Your task to perform on an android device: Go to battery settings Image 0: 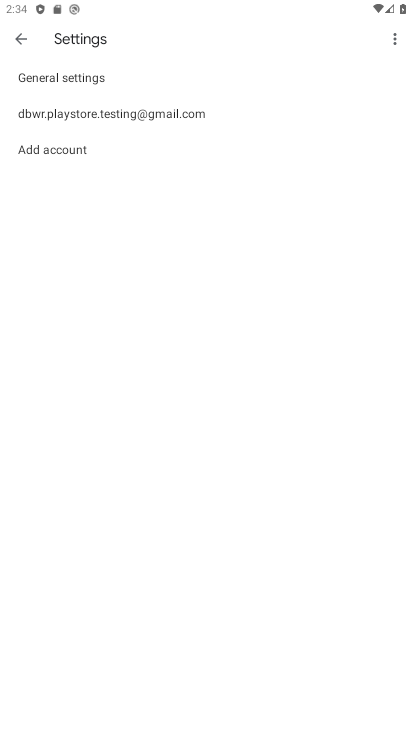
Step 0: press home button
Your task to perform on an android device: Go to battery settings Image 1: 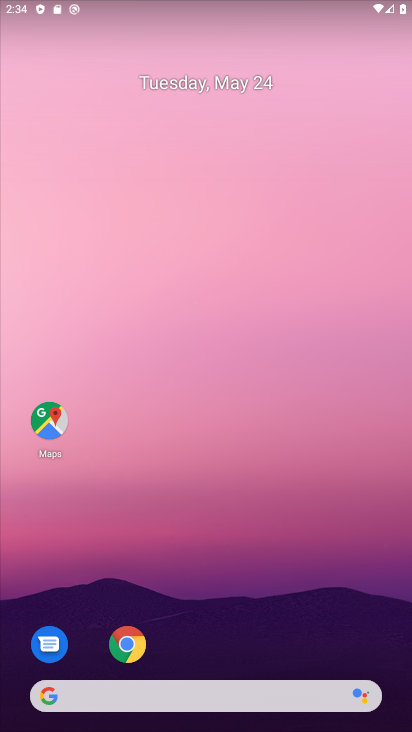
Step 1: drag from (280, 594) to (248, 9)
Your task to perform on an android device: Go to battery settings Image 2: 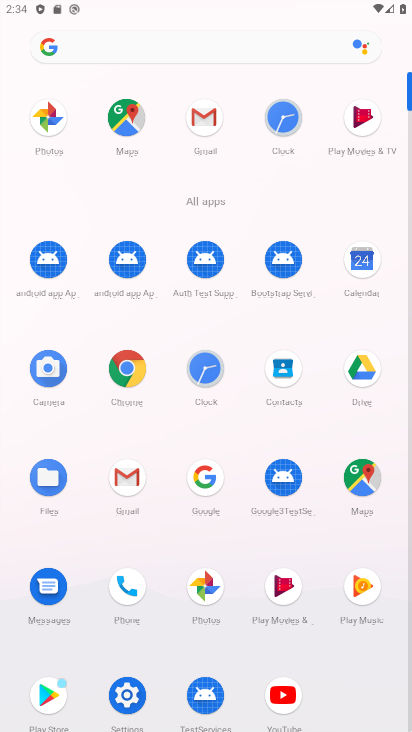
Step 2: click (141, 700)
Your task to perform on an android device: Go to battery settings Image 3: 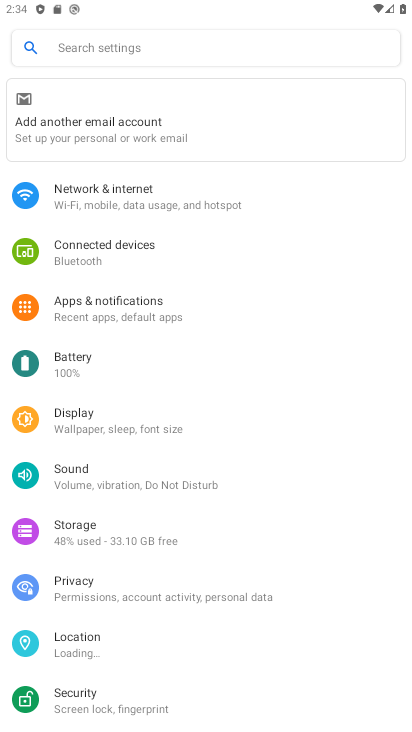
Step 3: click (86, 365)
Your task to perform on an android device: Go to battery settings Image 4: 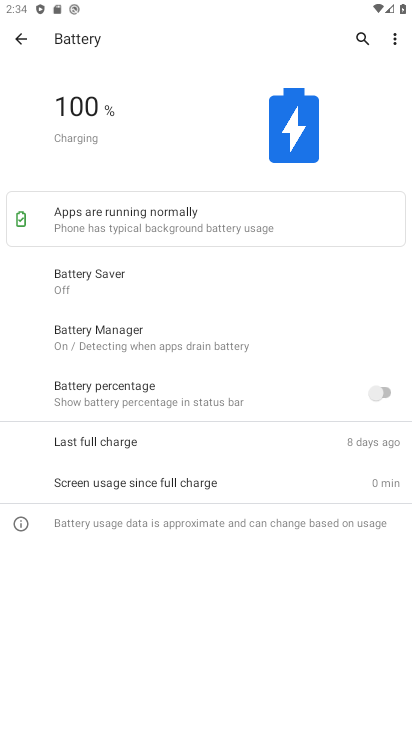
Step 4: task complete